Your task to perform on an android device: Open my contact list Image 0: 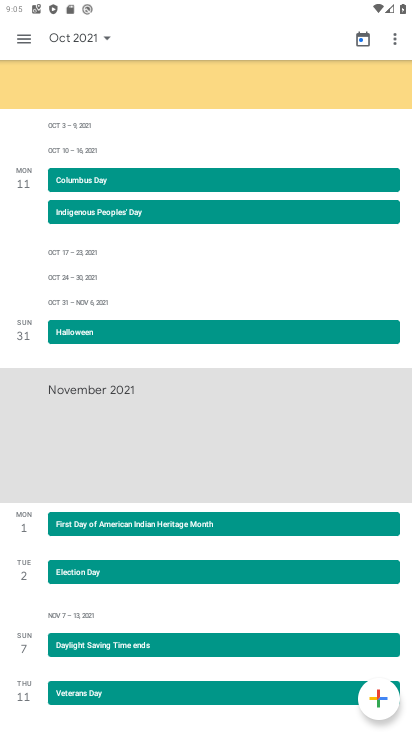
Step 0: drag from (165, 598) to (218, 377)
Your task to perform on an android device: Open my contact list Image 1: 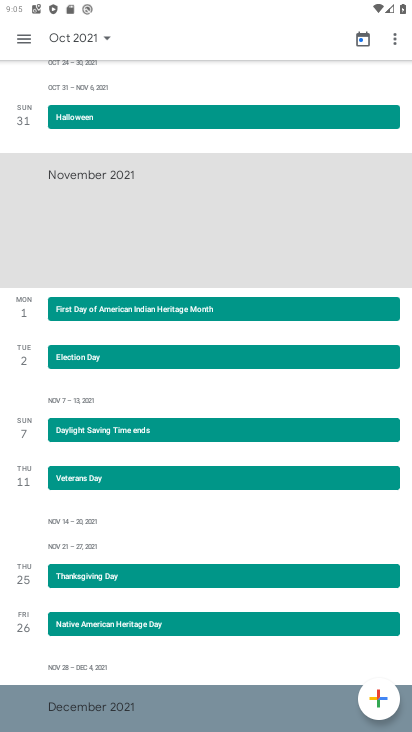
Step 1: press home button
Your task to perform on an android device: Open my contact list Image 2: 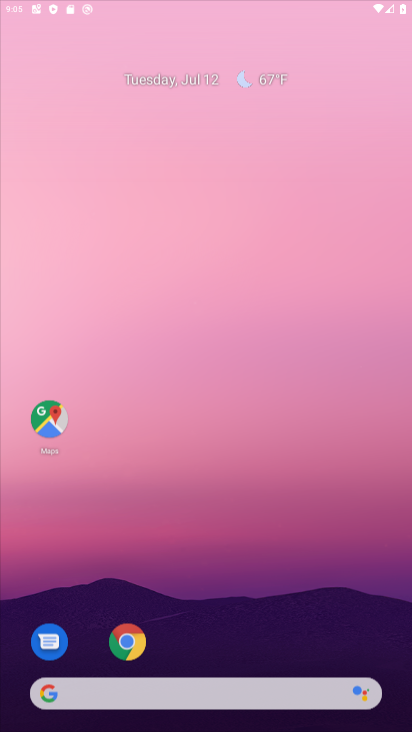
Step 2: drag from (260, 594) to (313, 53)
Your task to perform on an android device: Open my contact list Image 3: 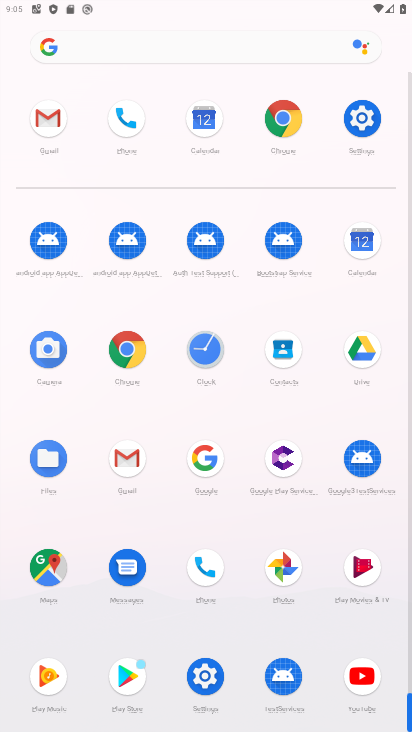
Step 3: click (276, 351)
Your task to perform on an android device: Open my contact list Image 4: 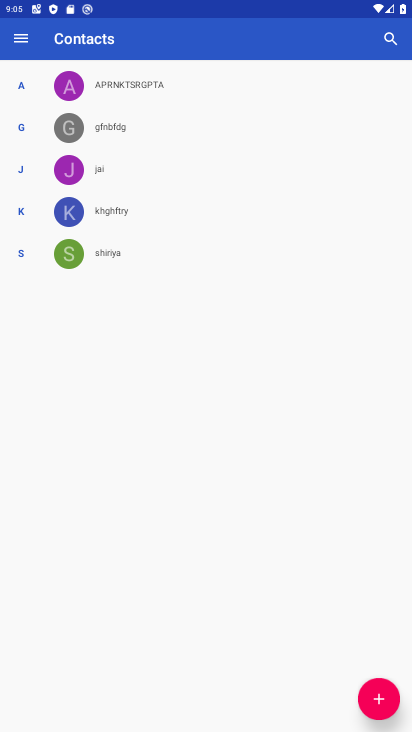
Step 4: task complete